Your task to perform on an android device: What's the weather today? Image 0: 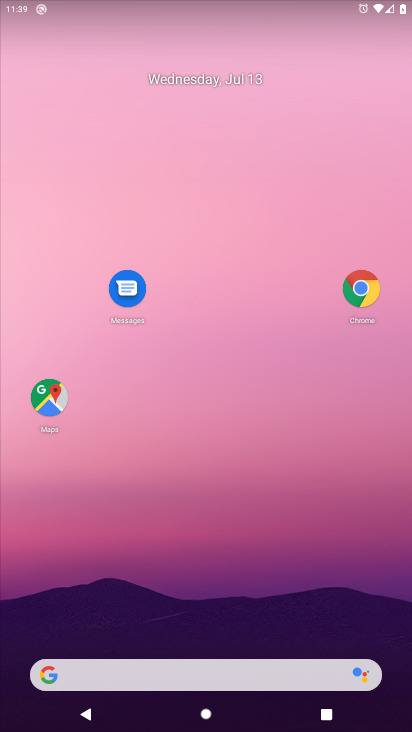
Step 0: click (76, 674)
Your task to perform on an android device: What's the weather today? Image 1: 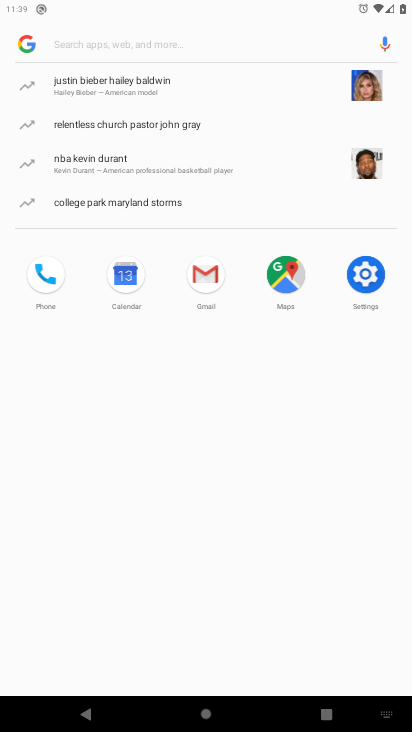
Step 1: type "What's the weather today?"
Your task to perform on an android device: What's the weather today? Image 2: 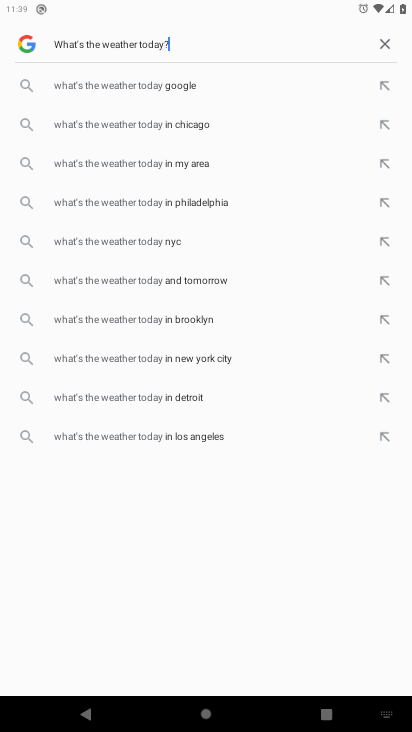
Step 2: type ""
Your task to perform on an android device: What's the weather today? Image 3: 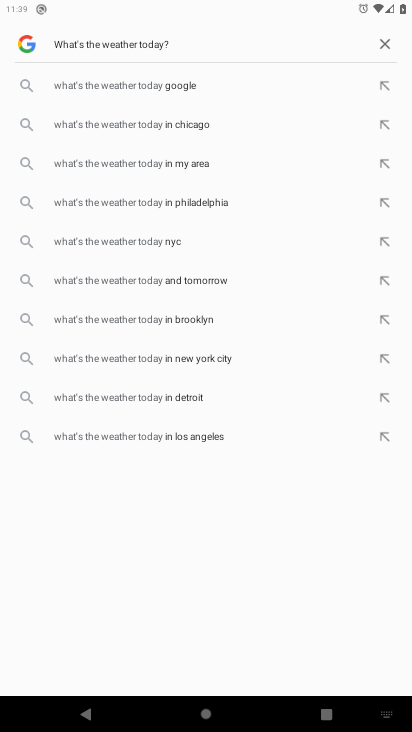
Step 3: type ""
Your task to perform on an android device: What's the weather today? Image 4: 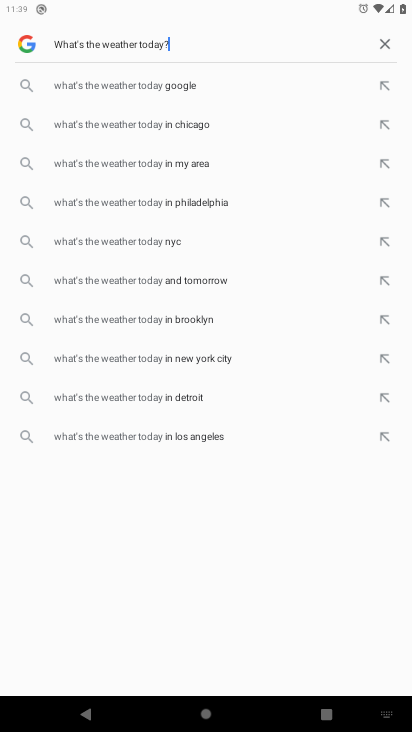
Step 4: type ""
Your task to perform on an android device: What's the weather today? Image 5: 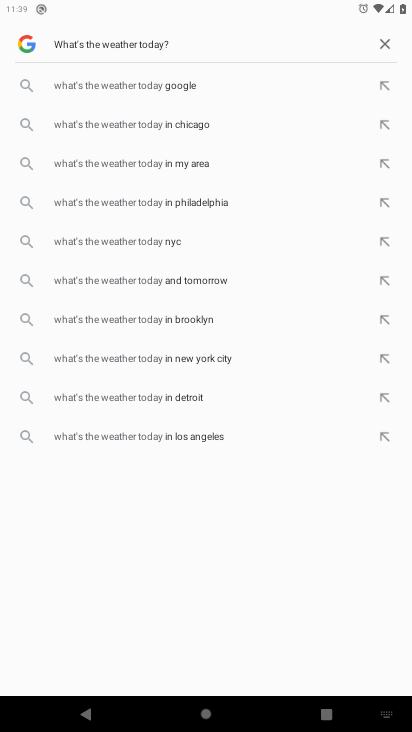
Step 5: task complete